Your task to perform on an android device: Search for 'The Girl on the Train' on Goodreads. Image 0: 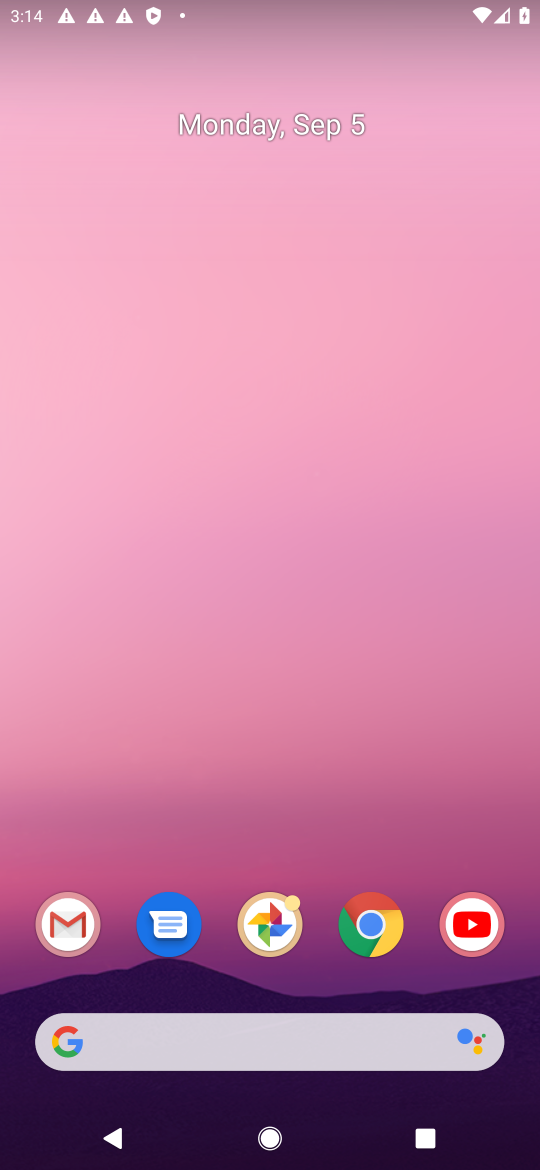
Step 0: click (361, 25)
Your task to perform on an android device: Search for 'The Girl on the Train' on Goodreads. Image 1: 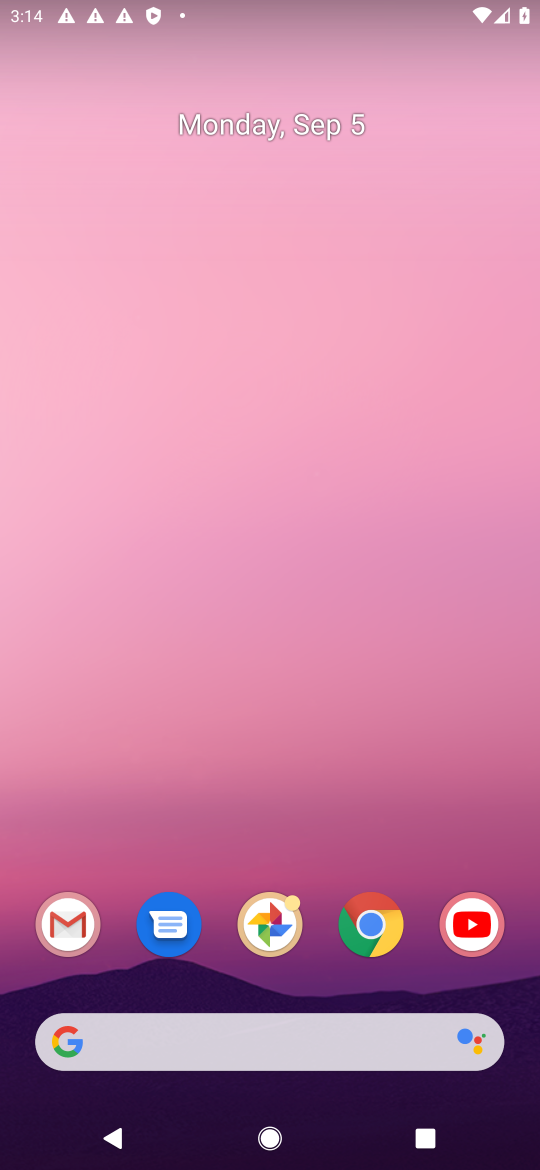
Step 1: drag from (284, 1003) to (432, 233)
Your task to perform on an android device: Search for 'The Girl on the Train' on Goodreads. Image 2: 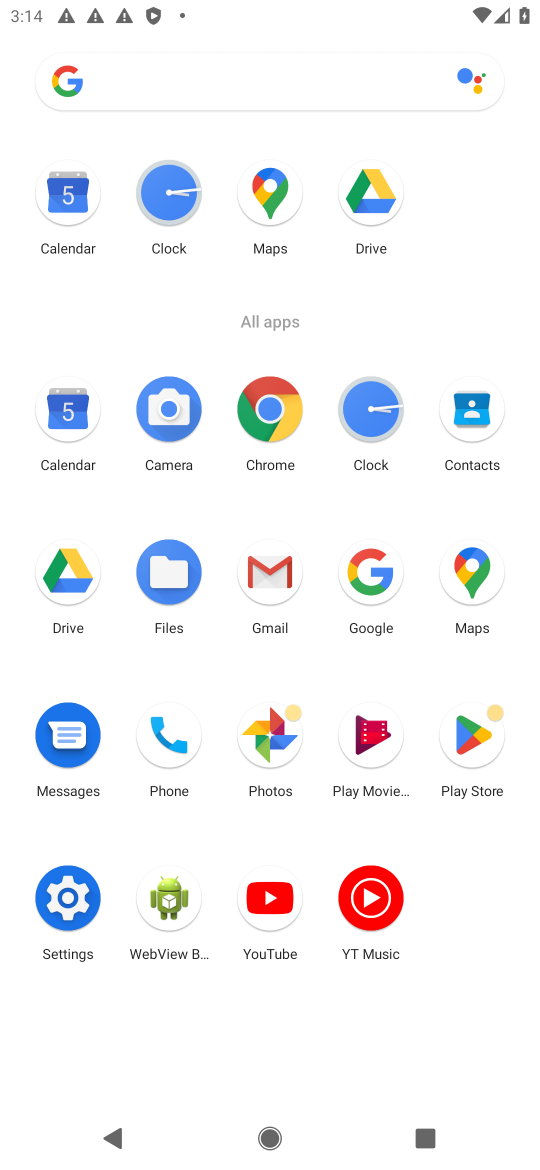
Step 2: click (286, 416)
Your task to perform on an android device: Search for 'The Girl on the Train' on Goodreads. Image 3: 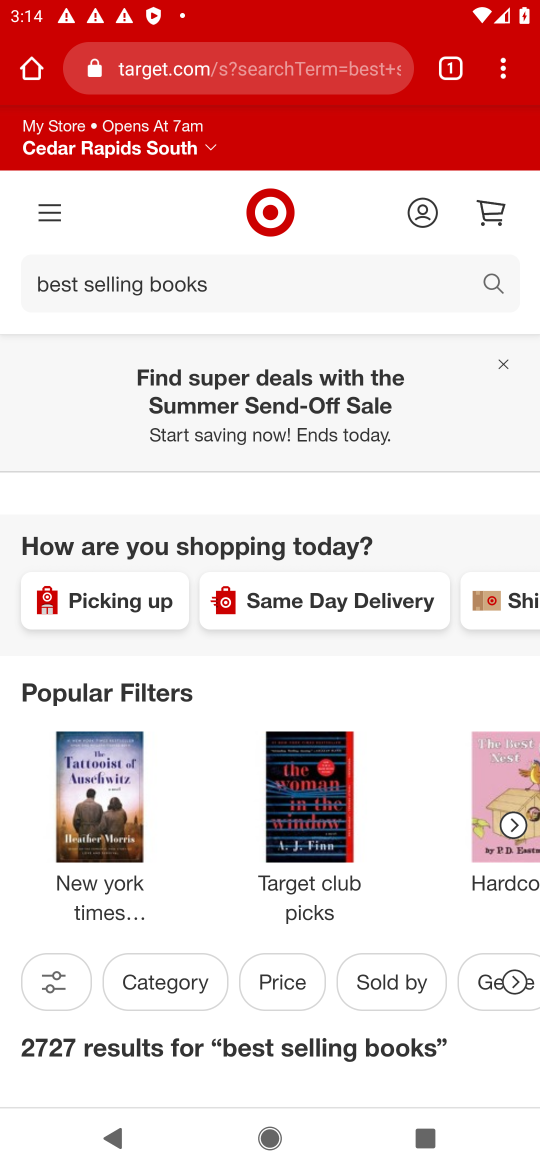
Step 3: click (319, 75)
Your task to perform on an android device: Search for 'The Girl on the Train' on Goodreads. Image 4: 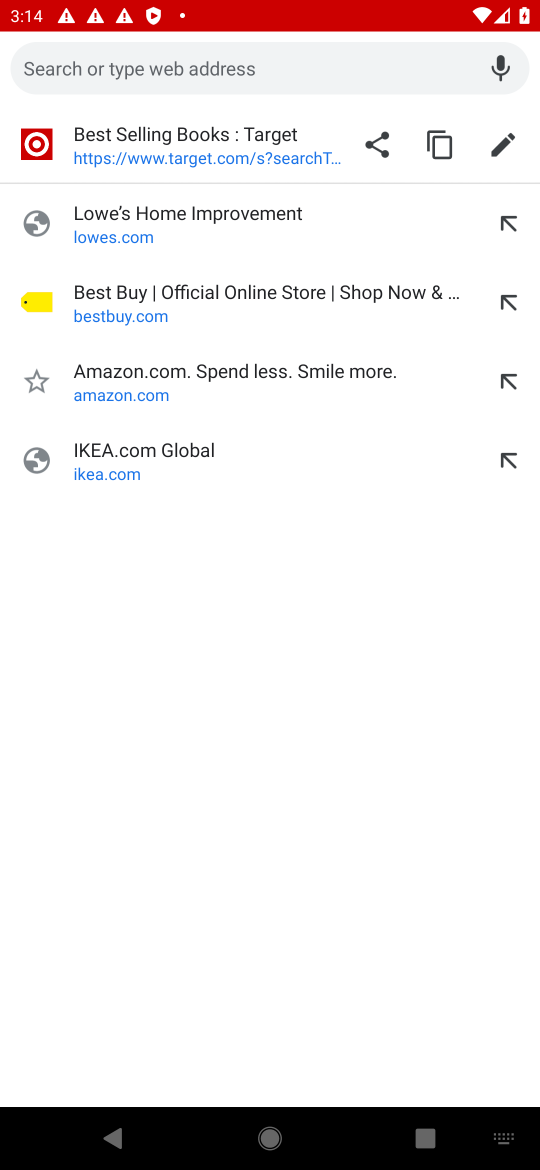
Step 4: type "goodreads"
Your task to perform on an android device: Search for 'The Girl on the Train' on Goodreads. Image 5: 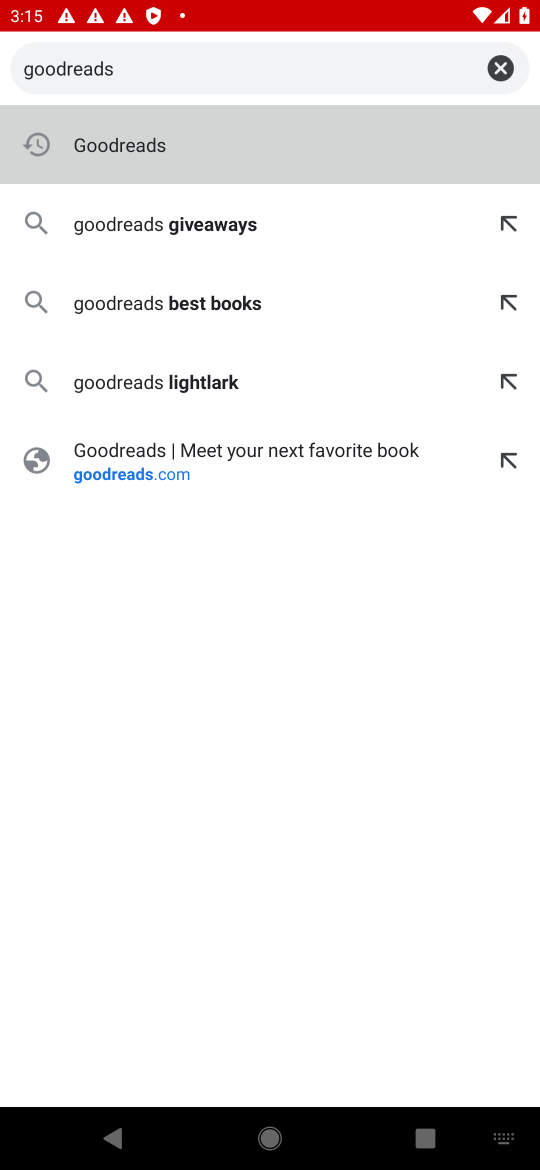
Step 5: click (333, 157)
Your task to perform on an android device: Search for 'The Girl on the Train' on Goodreads. Image 6: 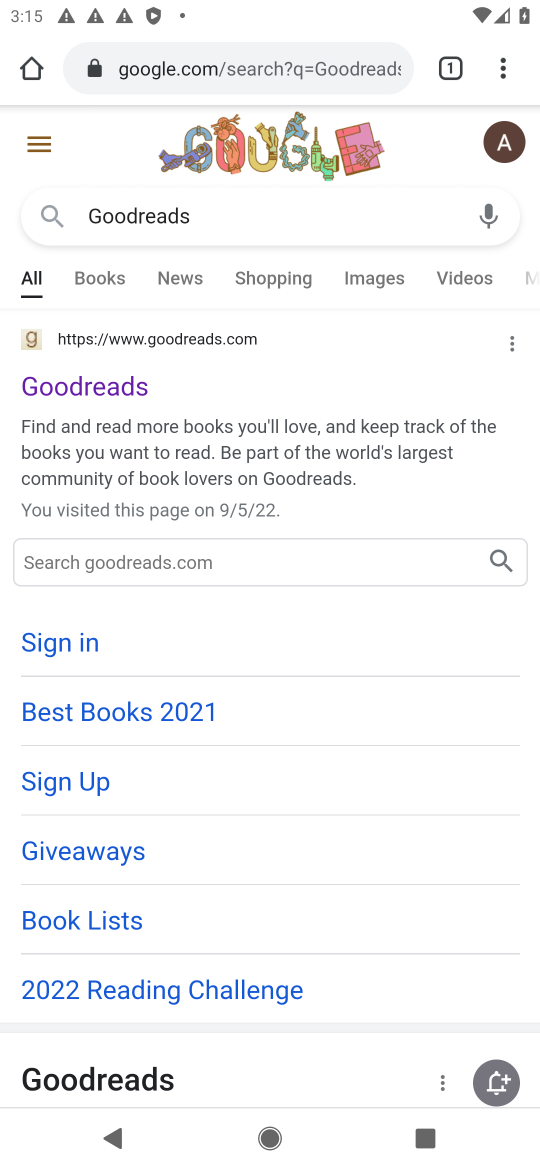
Step 6: click (79, 400)
Your task to perform on an android device: Search for 'The Girl on the Train' on Goodreads. Image 7: 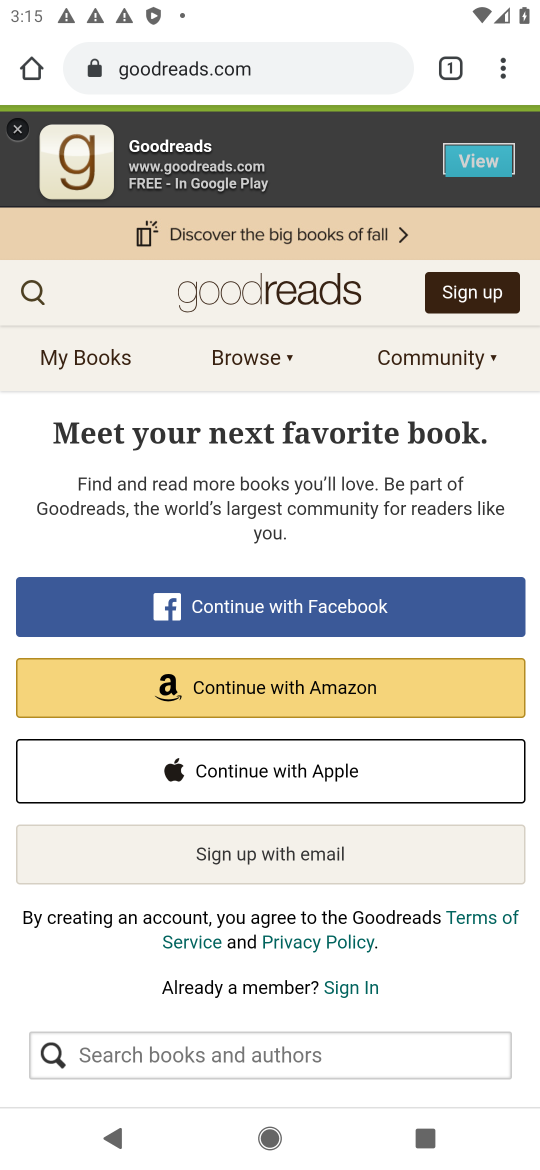
Step 7: click (33, 291)
Your task to perform on an android device: Search for 'The Girl on the Train' on Goodreads. Image 8: 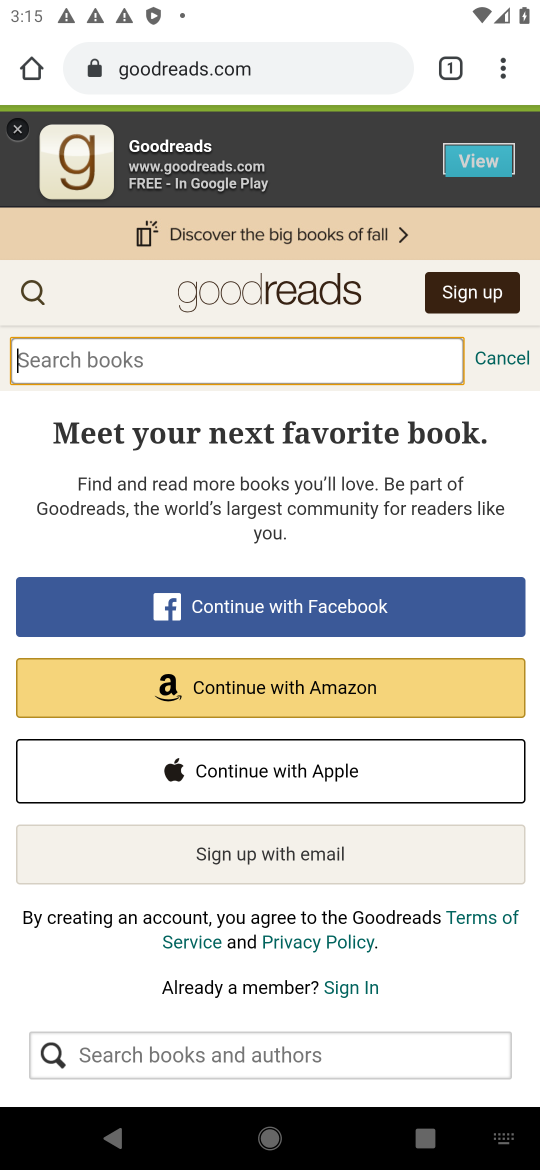
Step 8: type "The girl on the Train"
Your task to perform on an android device: Search for 'The Girl on the Train' on Goodreads. Image 9: 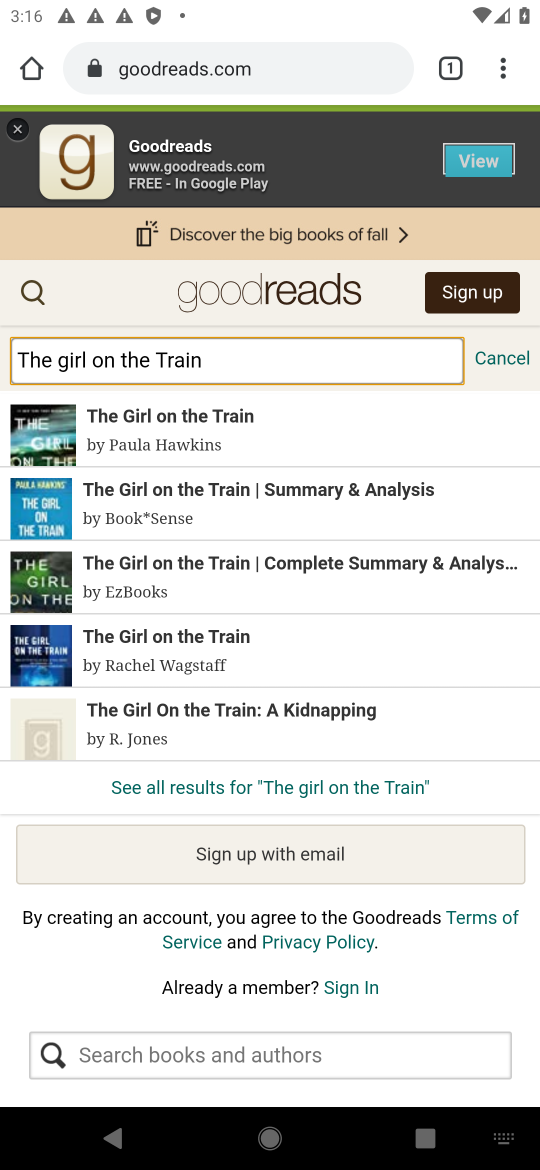
Step 9: click (311, 417)
Your task to perform on an android device: Search for 'The Girl on the Train' on Goodreads. Image 10: 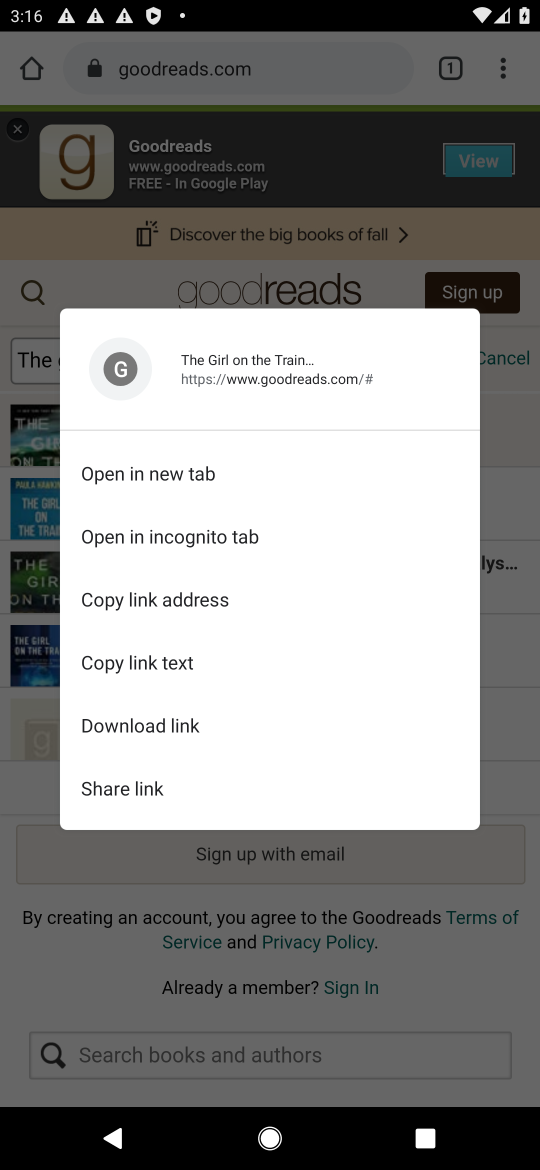
Step 10: click (30, 440)
Your task to perform on an android device: Search for 'The Girl on the Train' on Goodreads. Image 11: 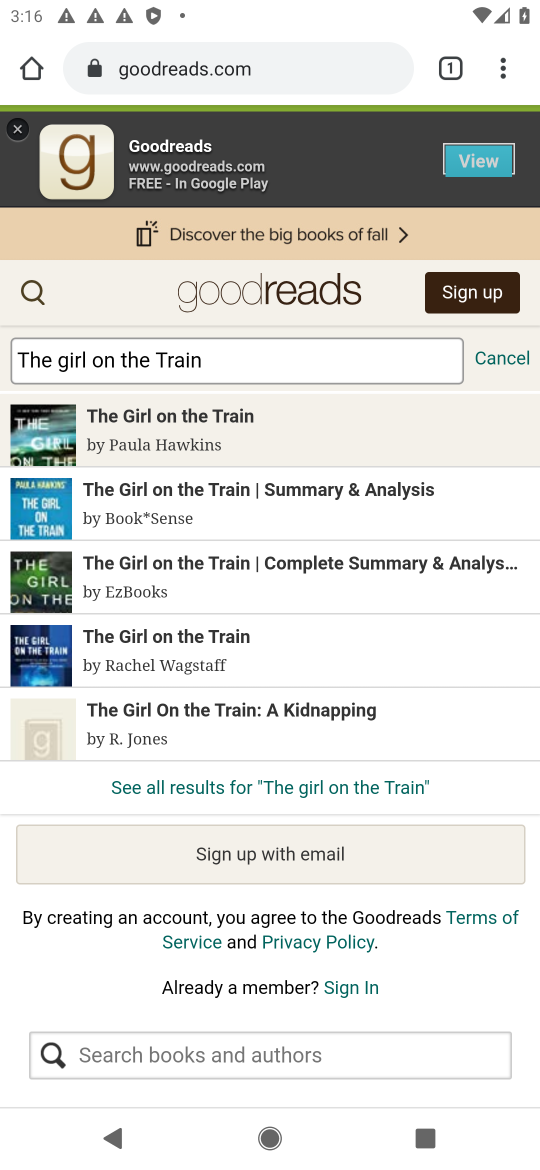
Step 11: click (30, 440)
Your task to perform on an android device: Search for 'The Girl on the Train' on Goodreads. Image 12: 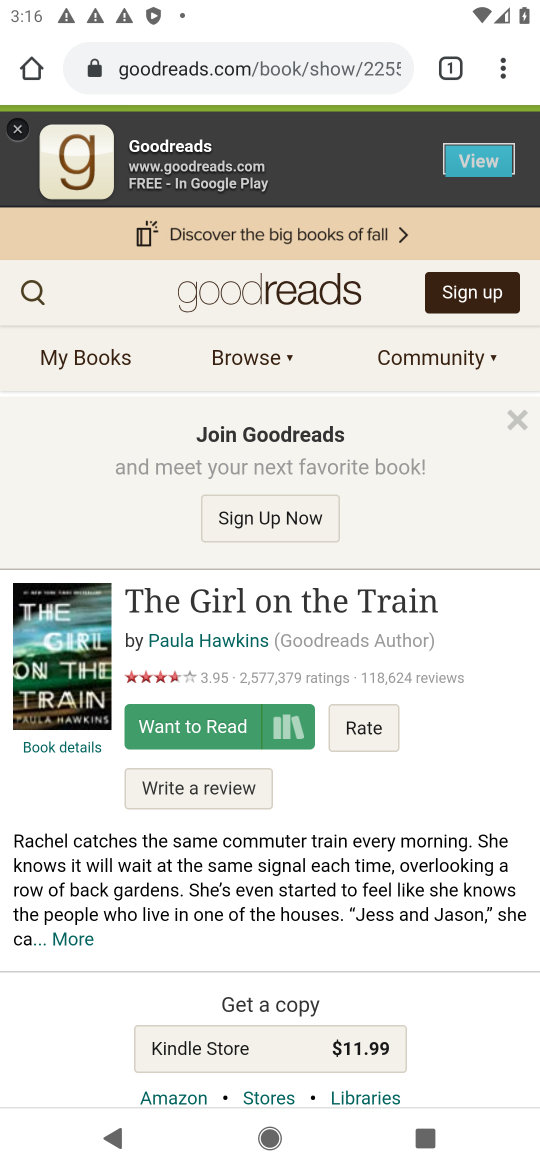
Step 12: task complete